Your task to perform on an android device: Open Amazon Image 0: 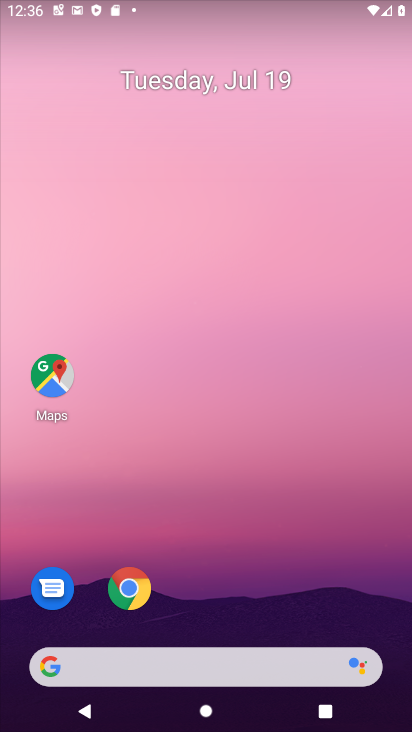
Step 0: drag from (332, 606) to (170, 43)
Your task to perform on an android device: Open Amazon Image 1: 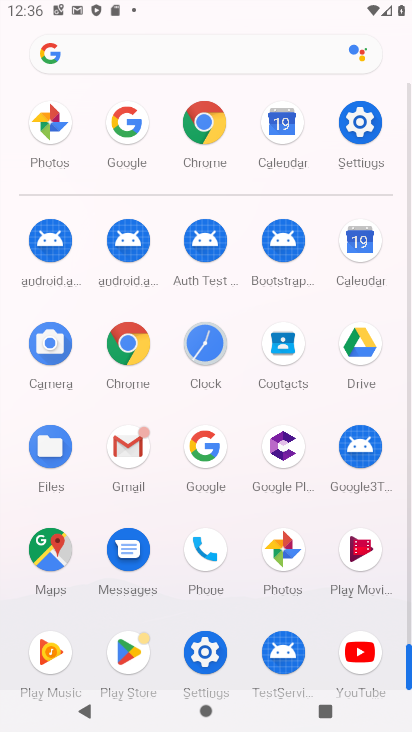
Step 1: click (193, 452)
Your task to perform on an android device: Open Amazon Image 2: 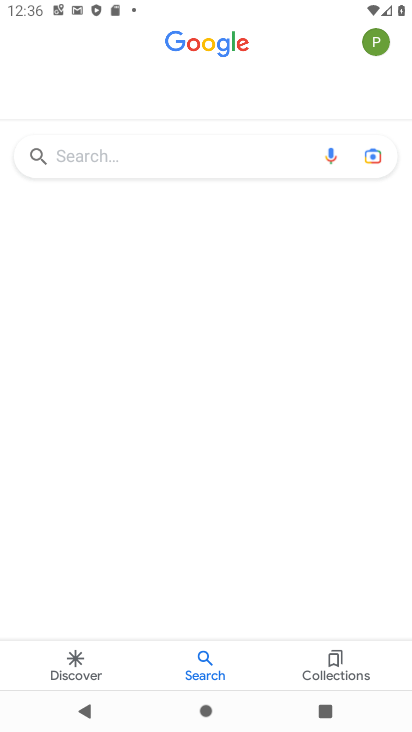
Step 2: click (87, 154)
Your task to perform on an android device: Open Amazon Image 3: 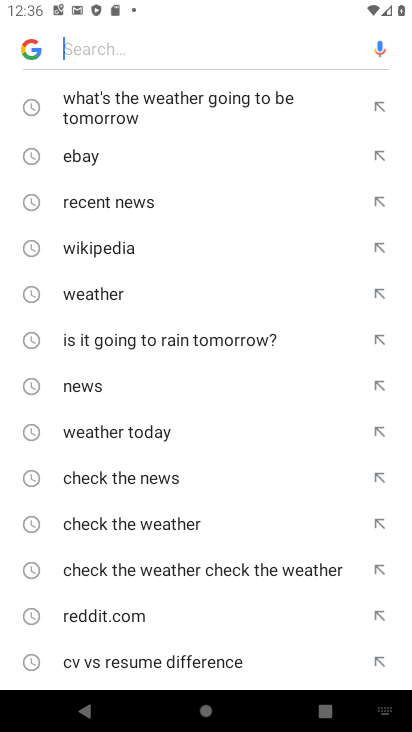
Step 3: drag from (134, 564) to (67, 73)
Your task to perform on an android device: Open Amazon Image 4: 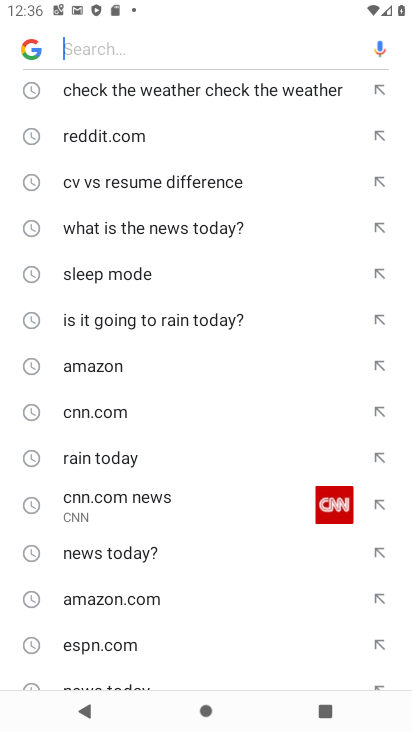
Step 4: click (116, 360)
Your task to perform on an android device: Open Amazon Image 5: 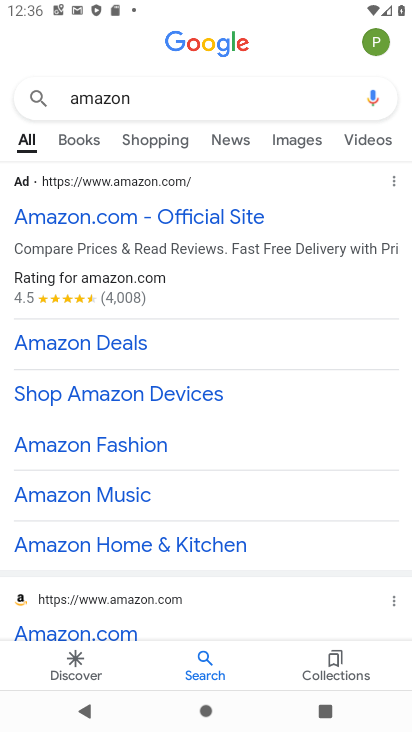
Step 5: task complete